Your task to perform on an android device: open wifi settings Image 0: 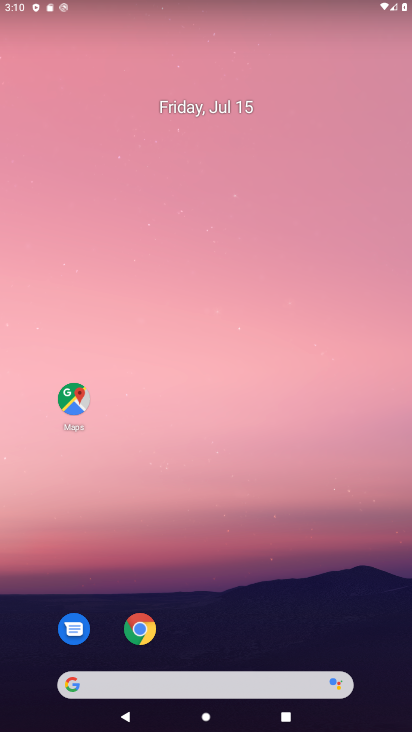
Step 0: drag from (246, 596) to (317, 2)
Your task to perform on an android device: open wifi settings Image 1: 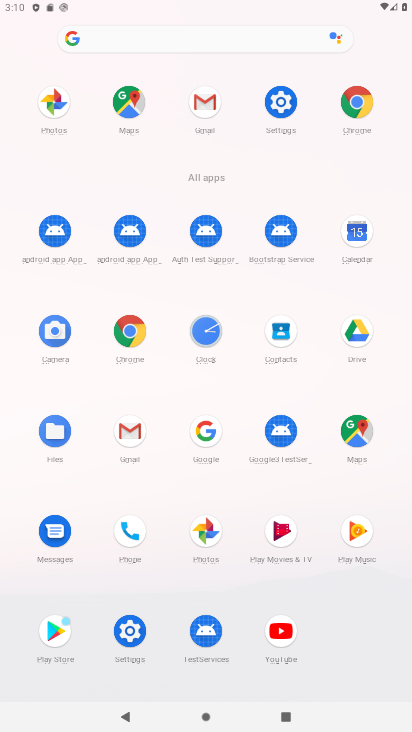
Step 1: click (284, 116)
Your task to perform on an android device: open wifi settings Image 2: 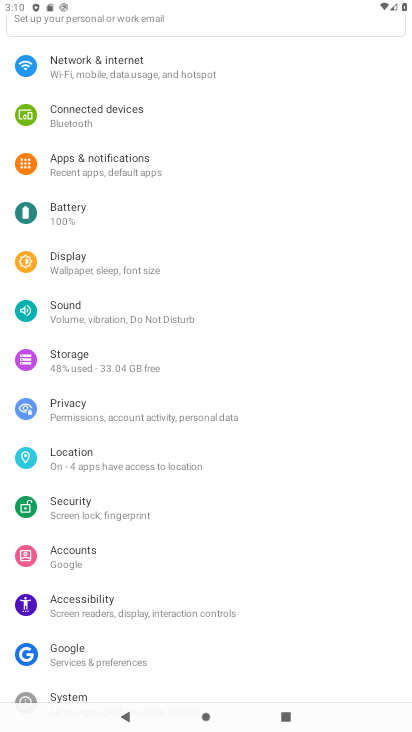
Step 2: click (163, 76)
Your task to perform on an android device: open wifi settings Image 3: 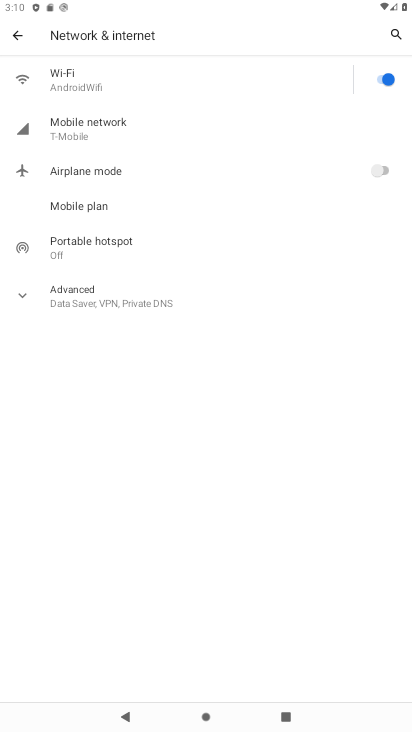
Step 3: click (204, 79)
Your task to perform on an android device: open wifi settings Image 4: 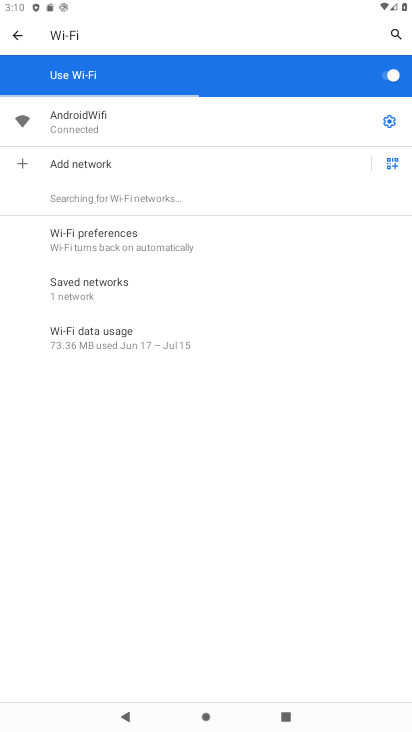
Step 4: task complete